Your task to perform on an android device: Open maps Image 0: 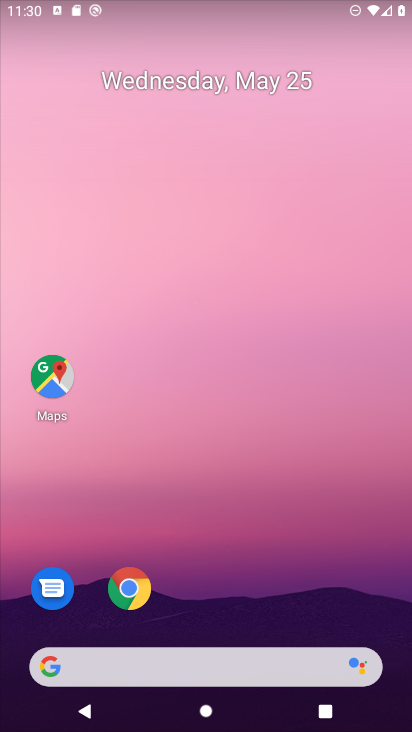
Step 0: press home button
Your task to perform on an android device: Open maps Image 1: 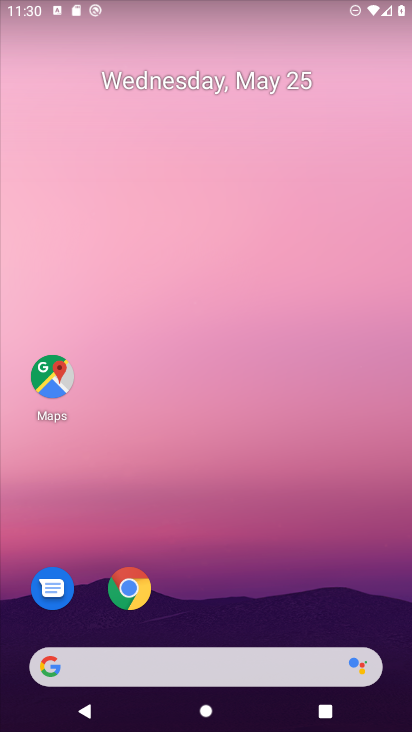
Step 1: click (46, 369)
Your task to perform on an android device: Open maps Image 2: 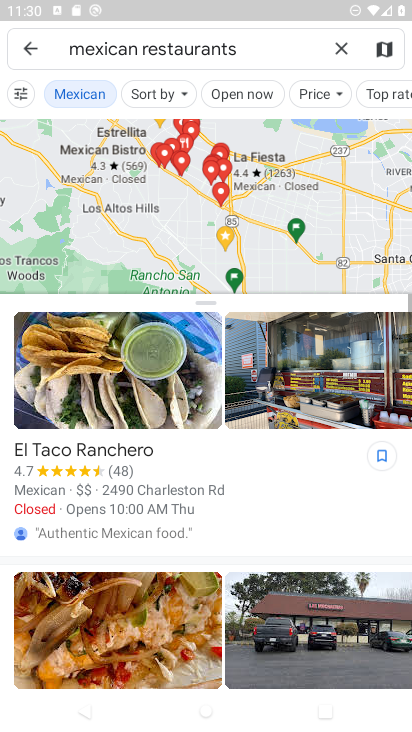
Step 2: click (335, 47)
Your task to perform on an android device: Open maps Image 3: 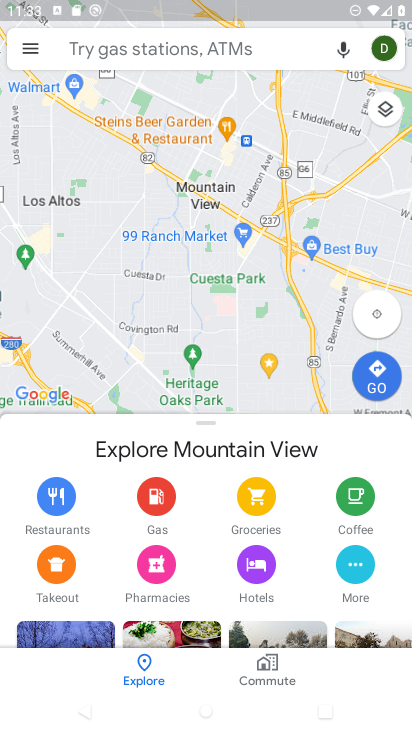
Step 3: task complete